Your task to perform on an android device: change the clock display to digital Image 0: 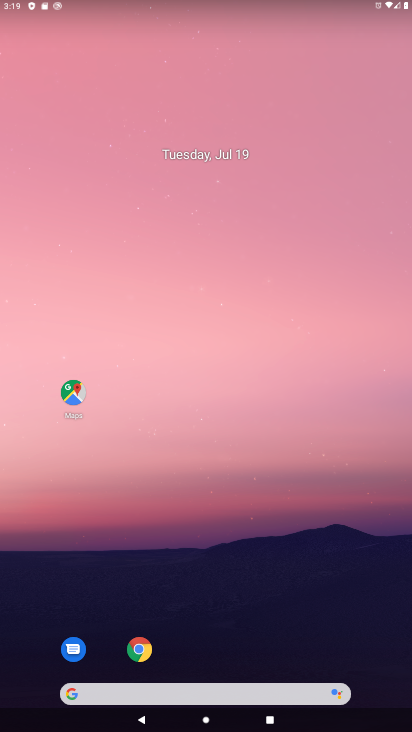
Step 0: drag from (169, 657) to (231, 150)
Your task to perform on an android device: change the clock display to digital Image 1: 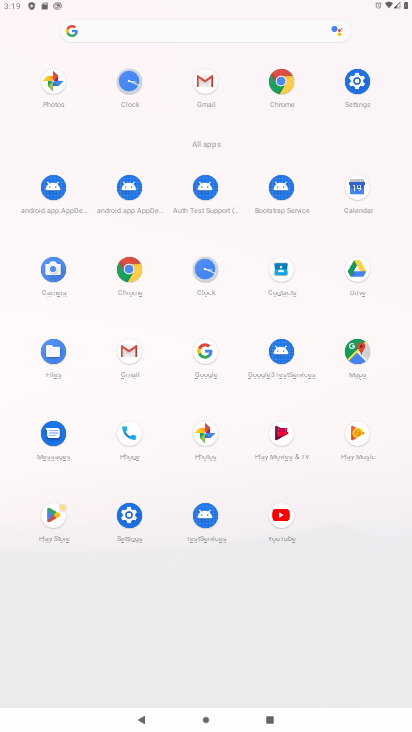
Step 1: click (220, 281)
Your task to perform on an android device: change the clock display to digital Image 2: 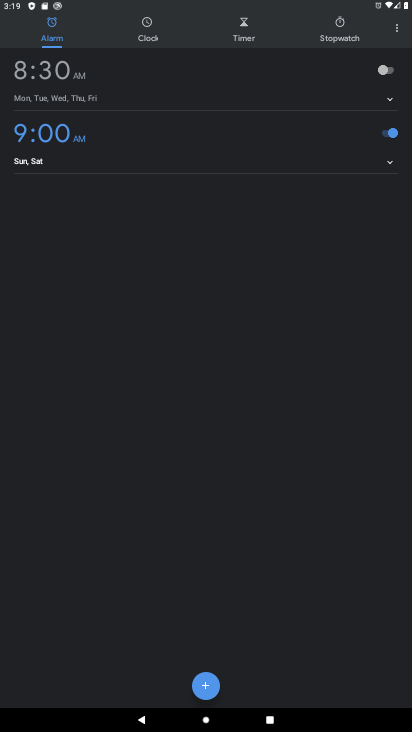
Step 2: click (407, 28)
Your task to perform on an android device: change the clock display to digital Image 3: 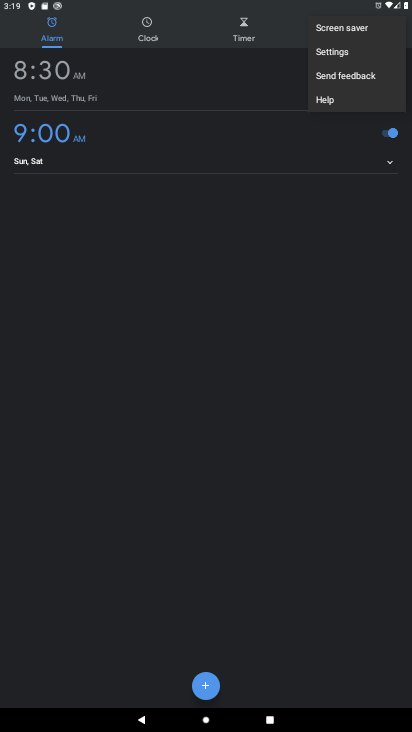
Step 3: click (341, 48)
Your task to perform on an android device: change the clock display to digital Image 4: 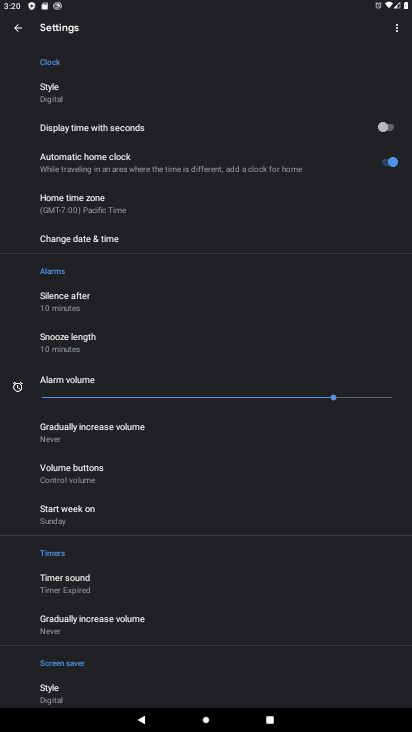
Step 4: task complete